Your task to perform on an android device: delete browsing data in the chrome app Image 0: 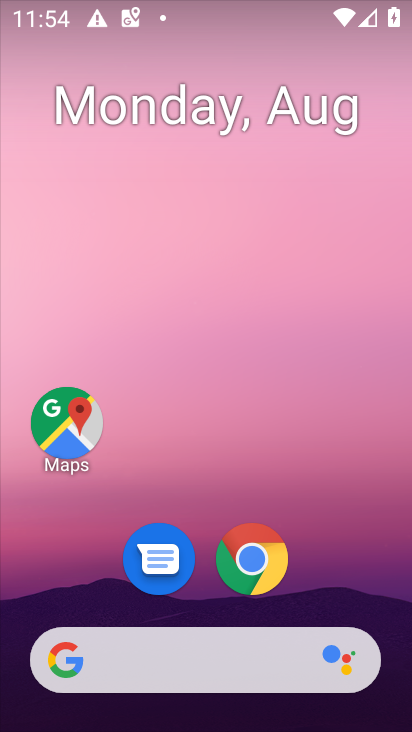
Step 0: click (238, 571)
Your task to perform on an android device: delete browsing data in the chrome app Image 1: 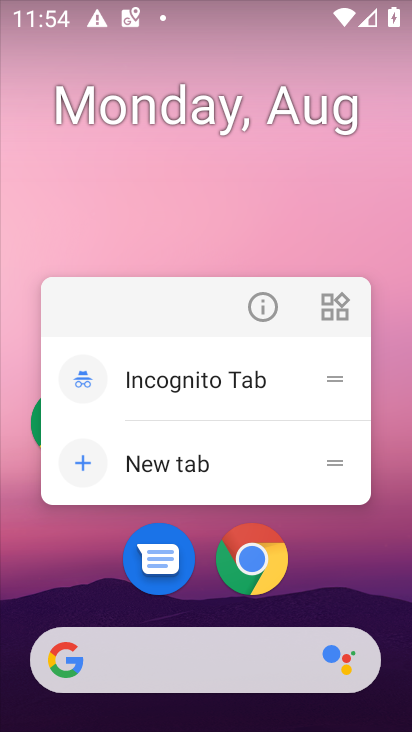
Step 1: click (272, 553)
Your task to perform on an android device: delete browsing data in the chrome app Image 2: 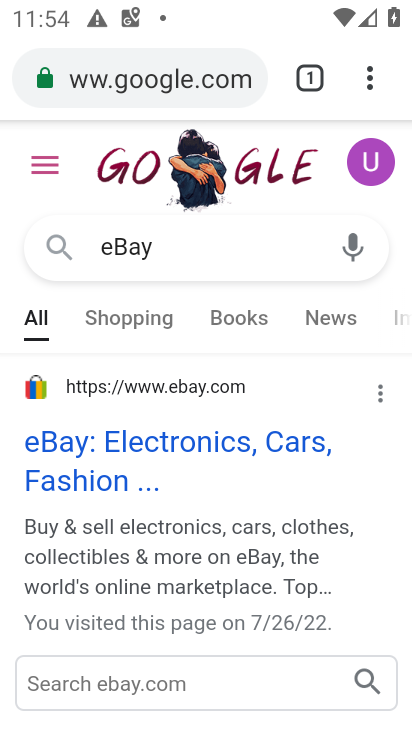
Step 2: click (369, 69)
Your task to perform on an android device: delete browsing data in the chrome app Image 3: 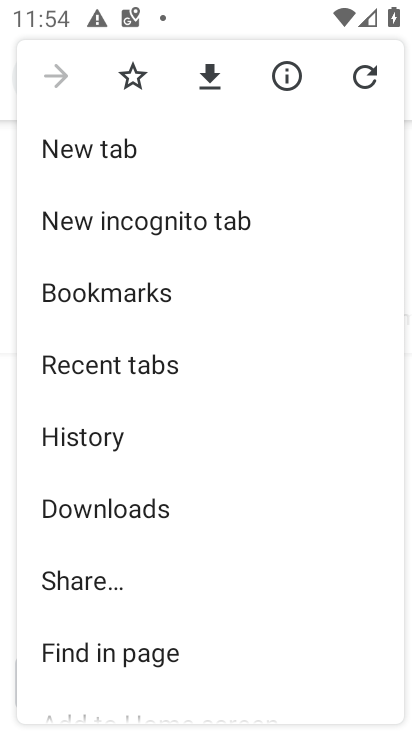
Step 3: drag from (99, 625) to (141, 375)
Your task to perform on an android device: delete browsing data in the chrome app Image 4: 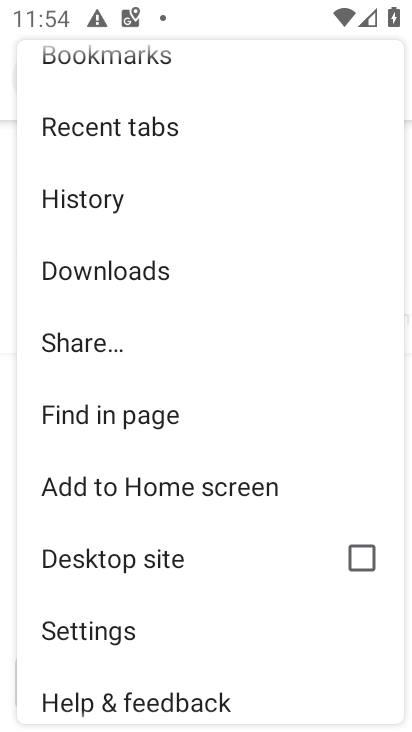
Step 4: click (94, 202)
Your task to perform on an android device: delete browsing data in the chrome app Image 5: 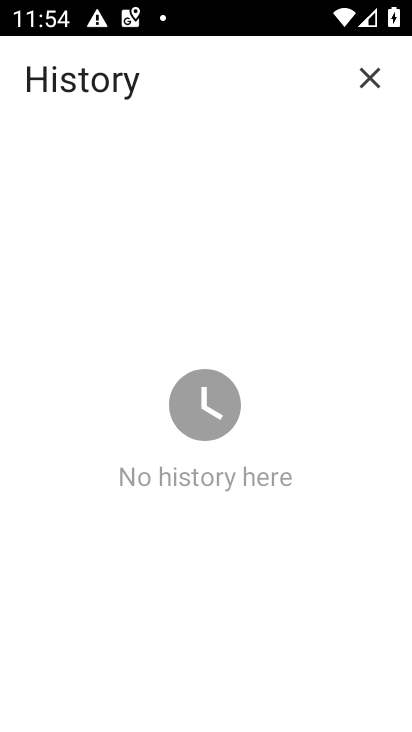
Step 5: task complete